Your task to perform on an android device: create a new album in the google photos Image 0: 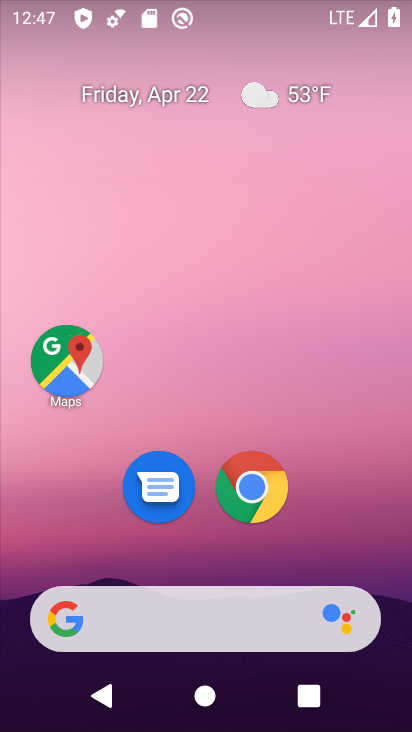
Step 0: drag from (263, 551) to (162, 26)
Your task to perform on an android device: create a new album in the google photos Image 1: 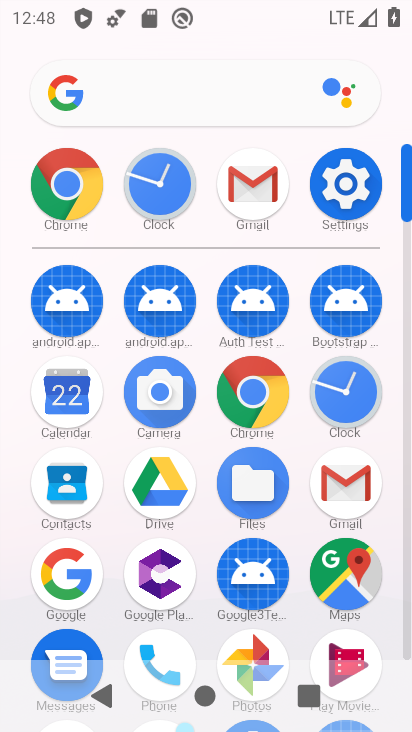
Step 1: click (250, 646)
Your task to perform on an android device: create a new album in the google photos Image 2: 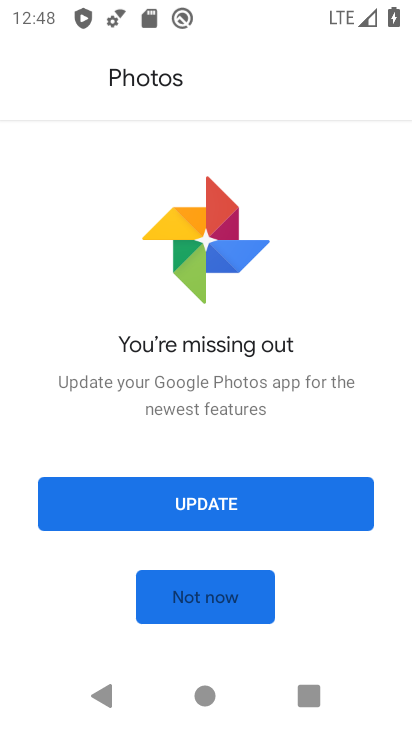
Step 2: click (212, 610)
Your task to perform on an android device: create a new album in the google photos Image 3: 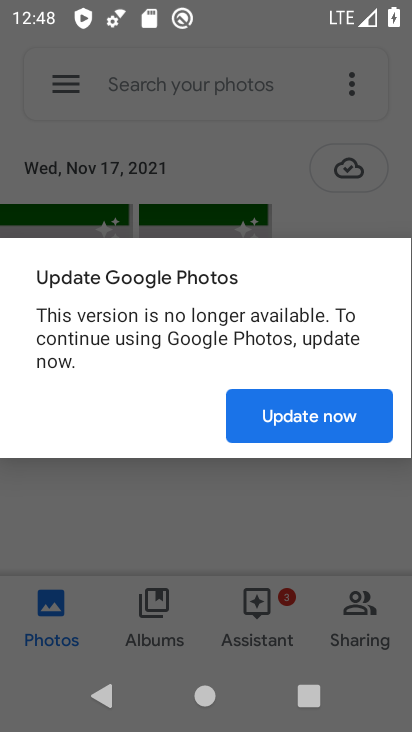
Step 3: click (285, 401)
Your task to perform on an android device: create a new album in the google photos Image 4: 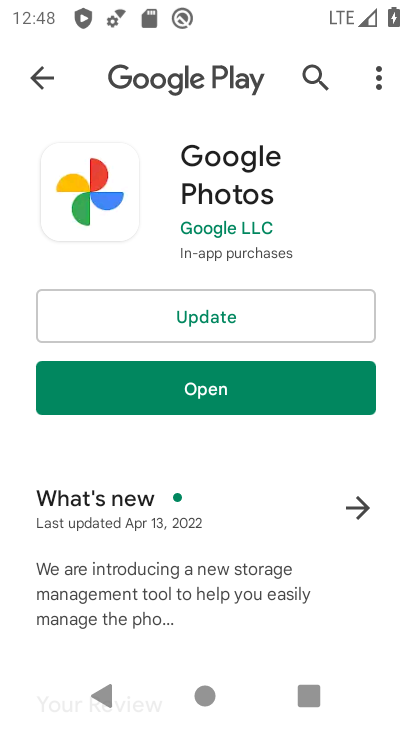
Step 4: click (248, 388)
Your task to perform on an android device: create a new album in the google photos Image 5: 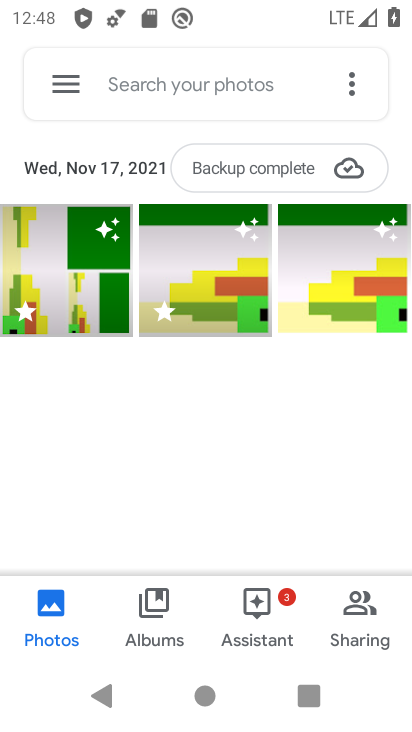
Step 5: click (72, 293)
Your task to perform on an android device: create a new album in the google photos Image 6: 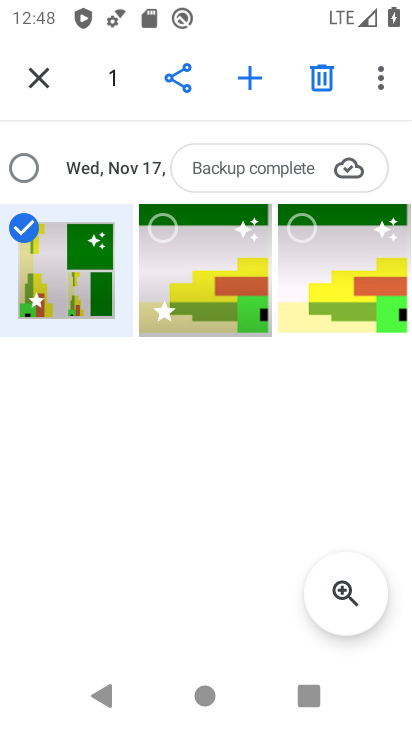
Step 6: click (167, 237)
Your task to perform on an android device: create a new album in the google photos Image 7: 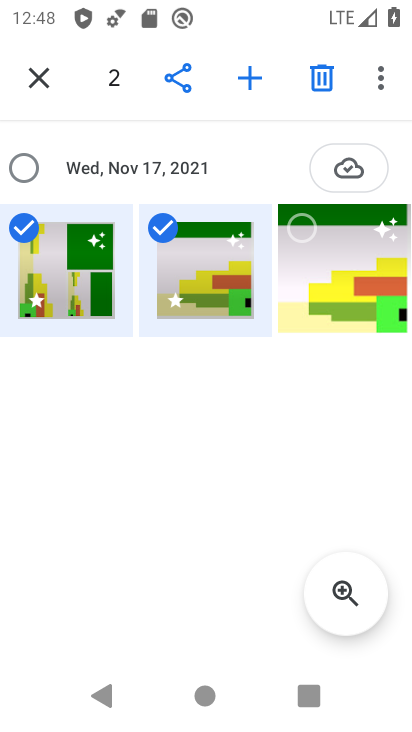
Step 7: click (296, 232)
Your task to perform on an android device: create a new album in the google photos Image 8: 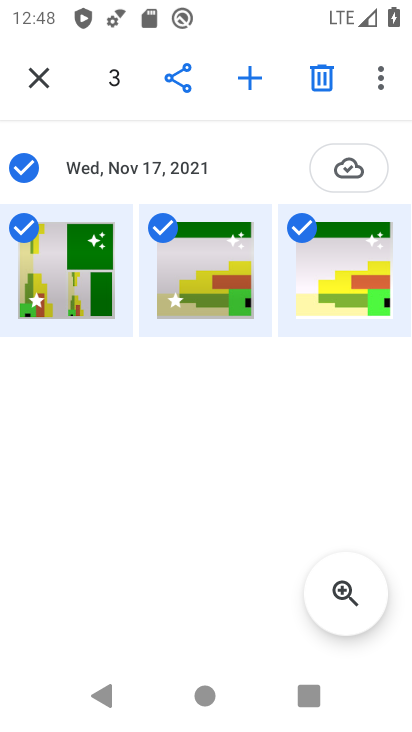
Step 8: click (242, 83)
Your task to perform on an android device: create a new album in the google photos Image 9: 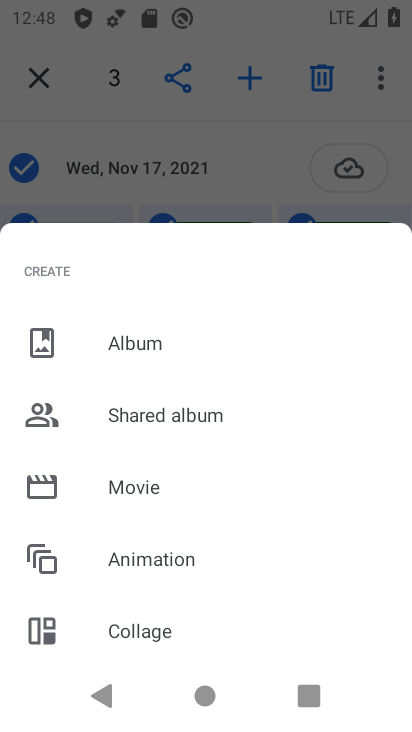
Step 9: click (225, 331)
Your task to perform on an android device: create a new album in the google photos Image 10: 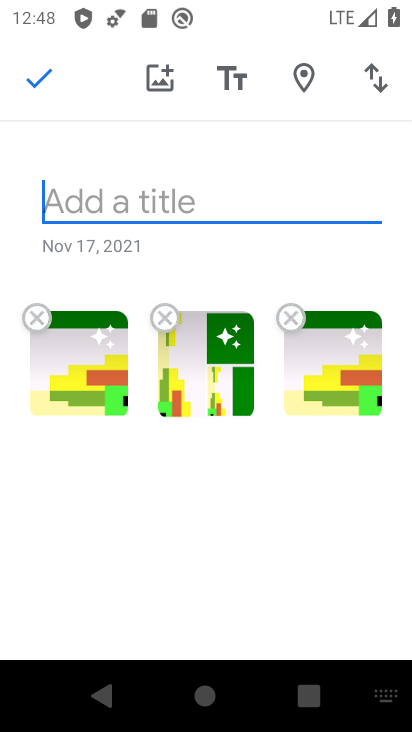
Step 10: type "hohoho"
Your task to perform on an android device: create a new album in the google photos Image 11: 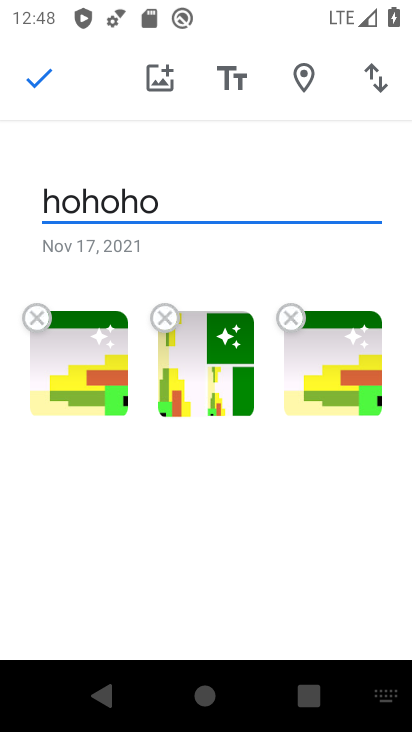
Step 11: click (61, 72)
Your task to perform on an android device: create a new album in the google photos Image 12: 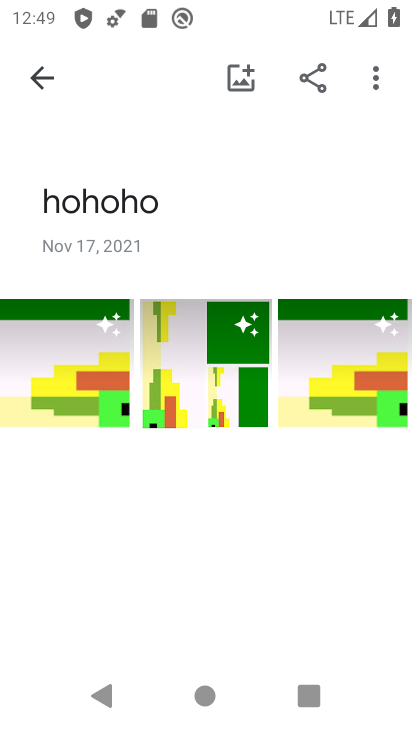
Step 12: task complete